Your task to perform on an android device: clear history in the chrome app Image 0: 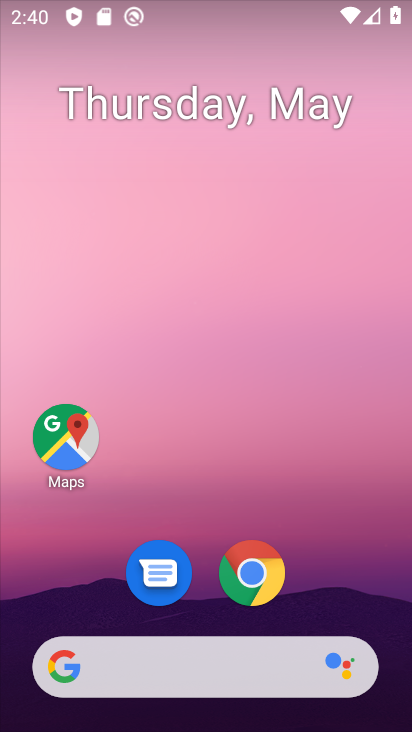
Step 0: drag from (137, 630) to (258, 234)
Your task to perform on an android device: clear history in the chrome app Image 1: 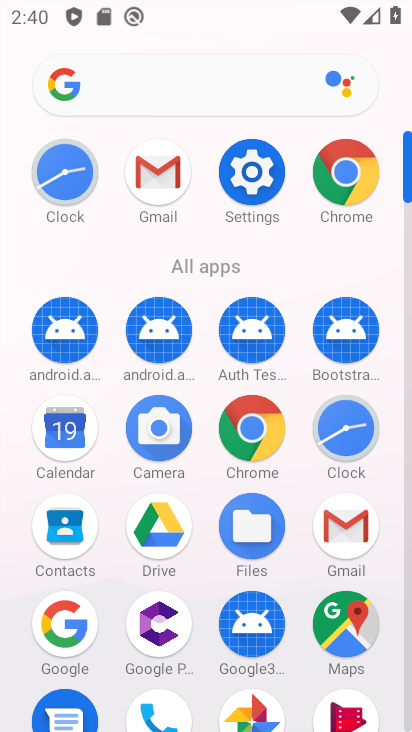
Step 1: click (346, 189)
Your task to perform on an android device: clear history in the chrome app Image 2: 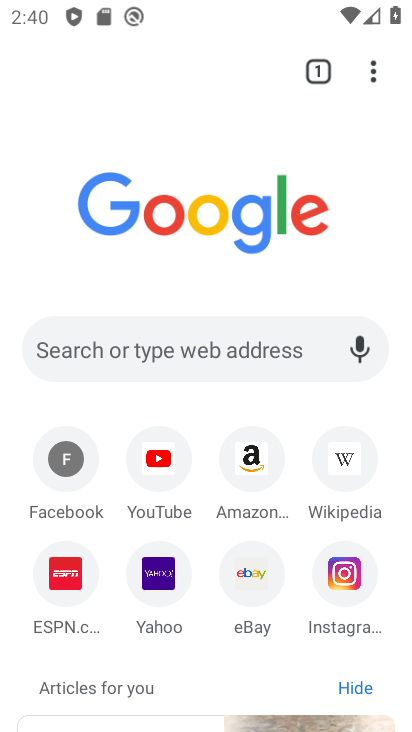
Step 2: click (368, 69)
Your task to perform on an android device: clear history in the chrome app Image 3: 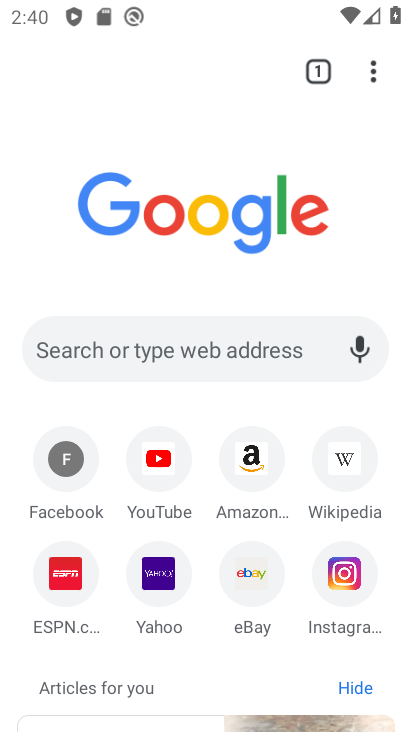
Step 3: click (371, 76)
Your task to perform on an android device: clear history in the chrome app Image 4: 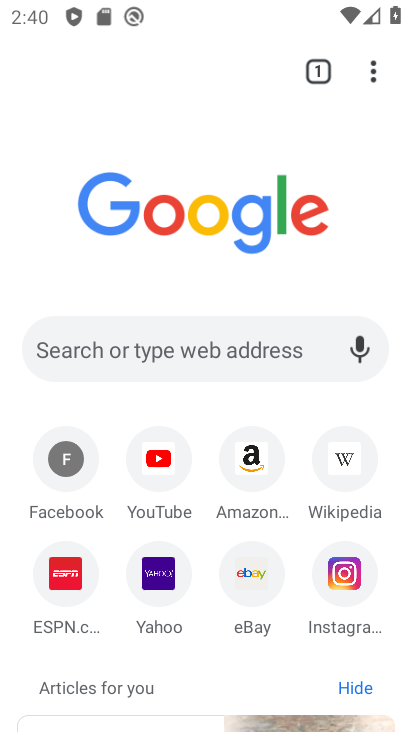
Step 4: click (371, 76)
Your task to perform on an android device: clear history in the chrome app Image 5: 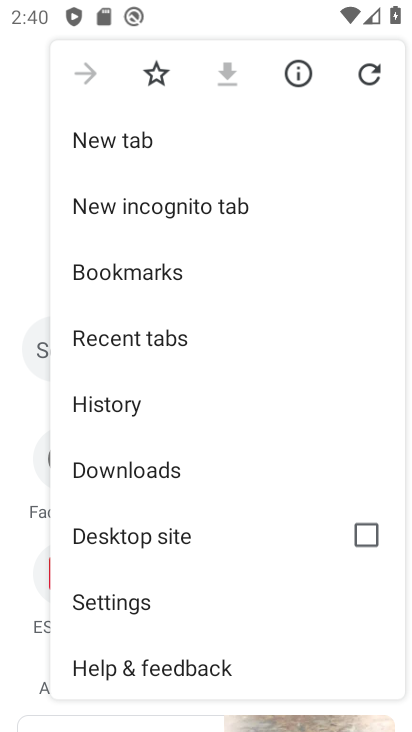
Step 5: click (110, 420)
Your task to perform on an android device: clear history in the chrome app Image 6: 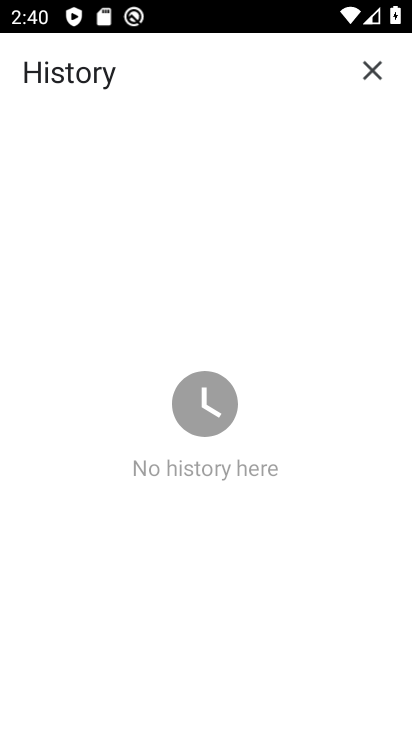
Step 6: task complete